Your task to perform on an android device: Open Chrome and go to the settings page Image 0: 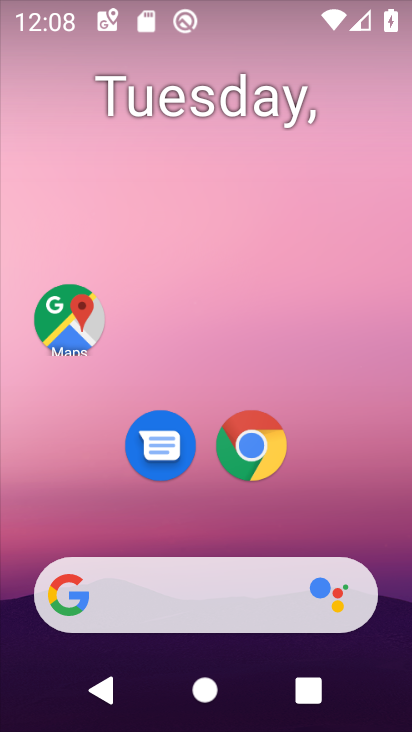
Step 0: click (254, 443)
Your task to perform on an android device: Open Chrome and go to the settings page Image 1: 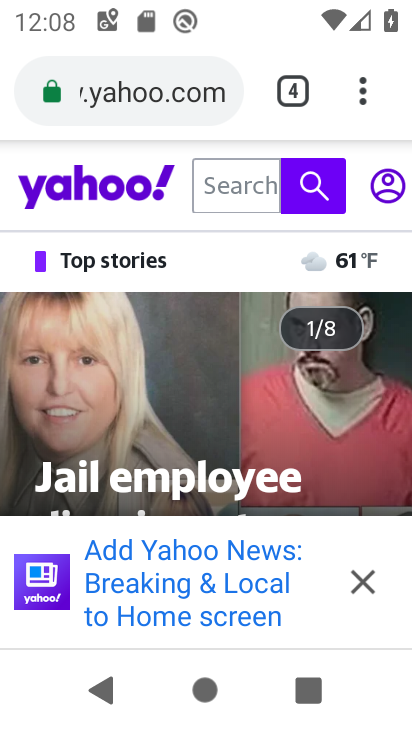
Step 1: click (363, 99)
Your task to perform on an android device: Open Chrome and go to the settings page Image 2: 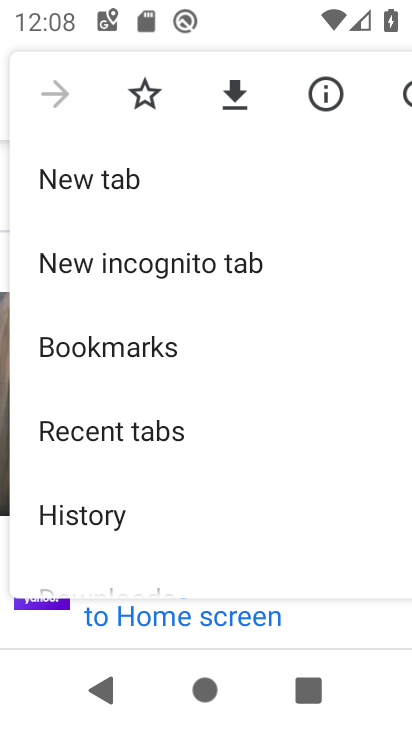
Step 2: drag from (218, 467) to (181, 147)
Your task to perform on an android device: Open Chrome and go to the settings page Image 3: 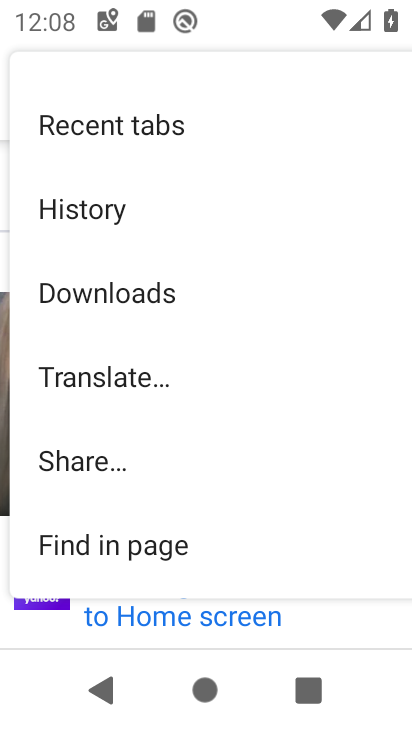
Step 3: drag from (213, 446) to (187, 137)
Your task to perform on an android device: Open Chrome and go to the settings page Image 4: 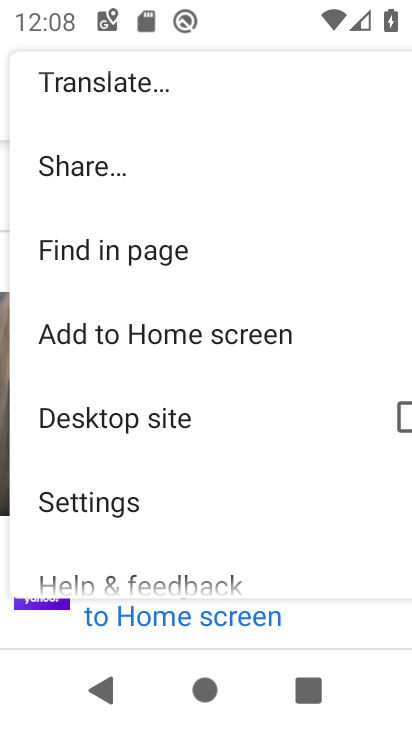
Step 4: click (103, 499)
Your task to perform on an android device: Open Chrome and go to the settings page Image 5: 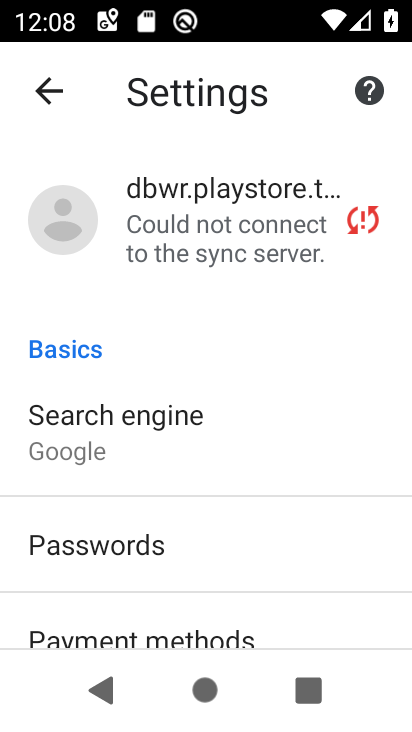
Step 5: task complete